Your task to perform on an android device: change the clock display to show seconds Image 0: 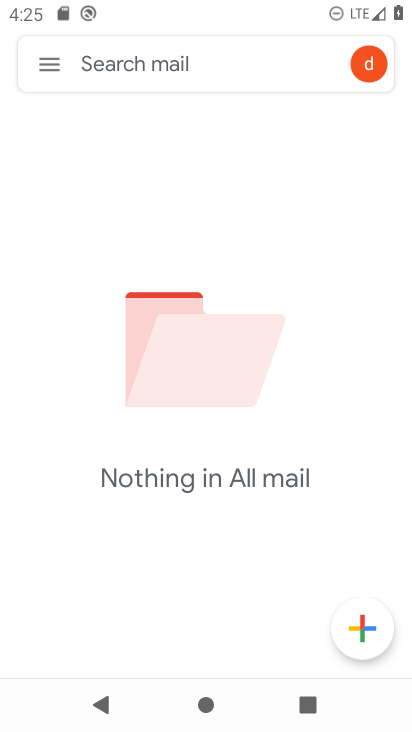
Step 0: press home button
Your task to perform on an android device: change the clock display to show seconds Image 1: 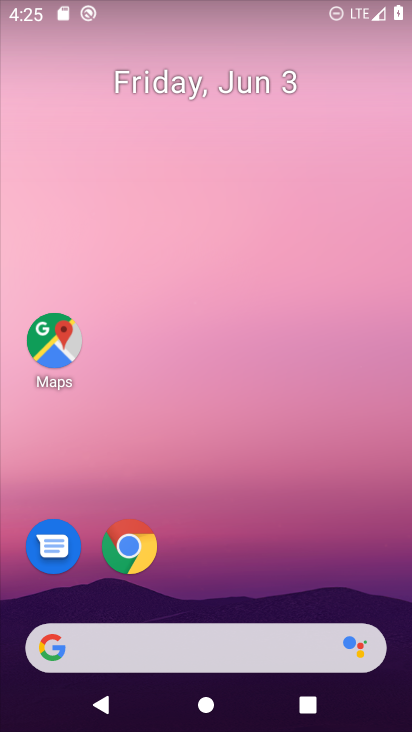
Step 1: drag from (265, 533) to (245, 12)
Your task to perform on an android device: change the clock display to show seconds Image 2: 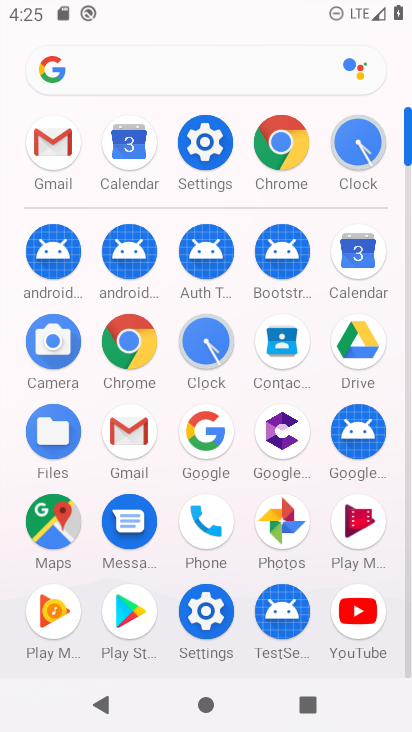
Step 2: click (369, 140)
Your task to perform on an android device: change the clock display to show seconds Image 3: 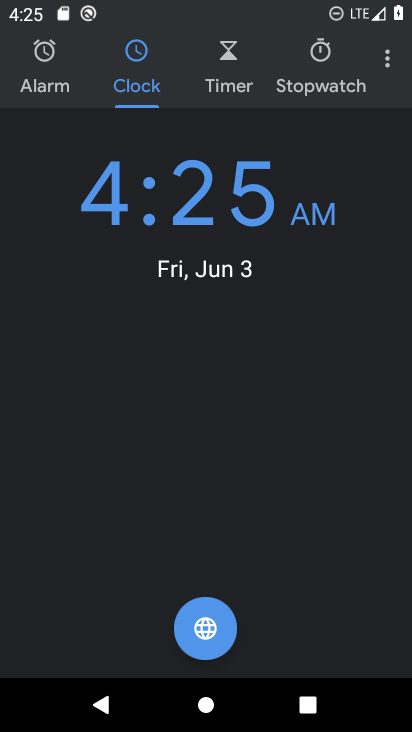
Step 3: click (388, 56)
Your task to perform on an android device: change the clock display to show seconds Image 4: 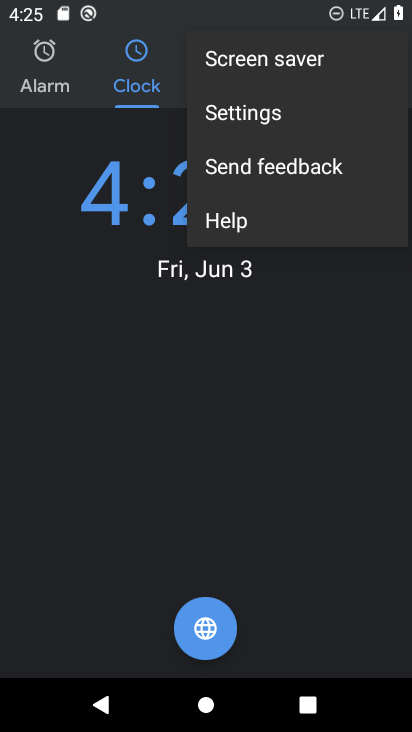
Step 4: click (313, 112)
Your task to perform on an android device: change the clock display to show seconds Image 5: 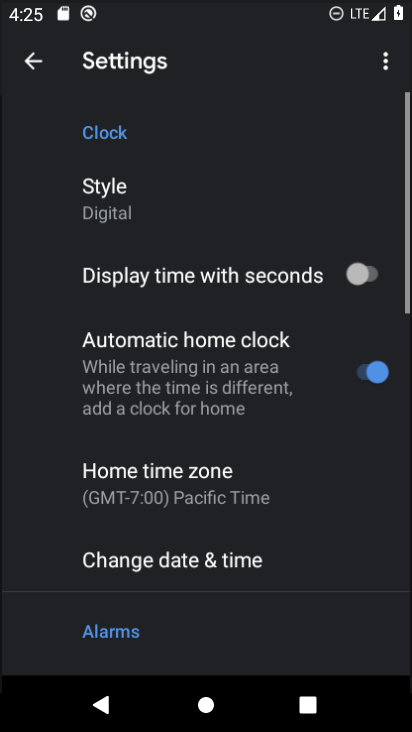
Step 5: click (314, 274)
Your task to perform on an android device: change the clock display to show seconds Image 6: 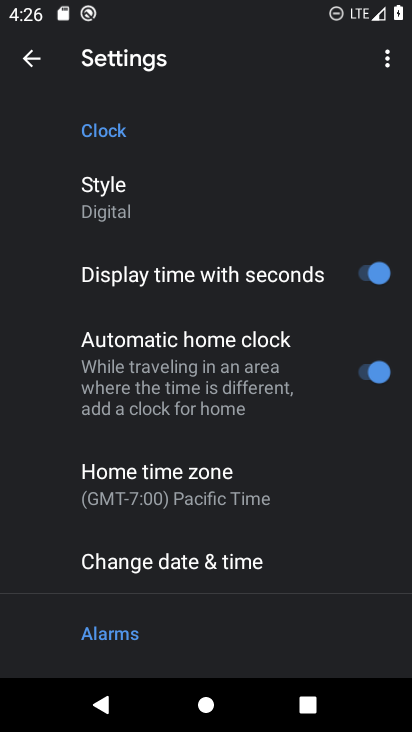
Step 6: task complete